Your task to perform on an android device: Open Chrome and go to settings Image 0: 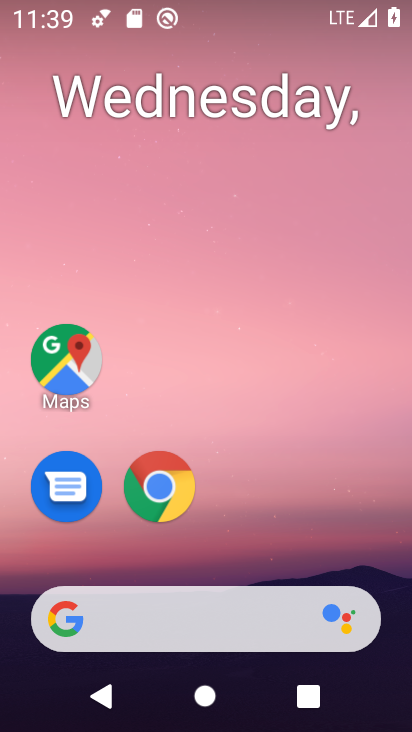
Step 0: drag from (350, 531) to (361, 76)
Your task to perform on an android device: Open Chrome and go to settings Image 1: 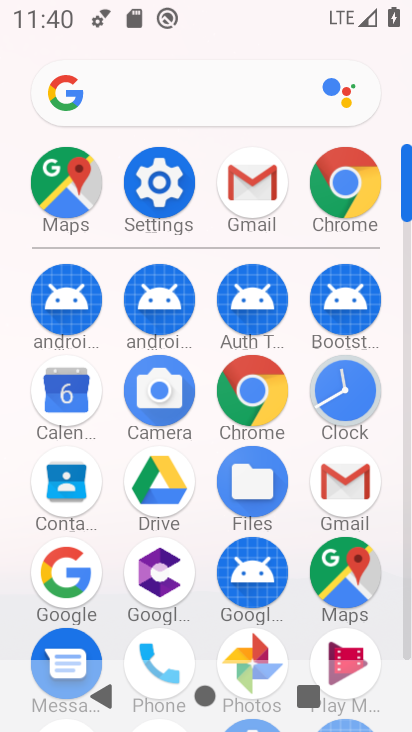
Step 1: click (266, 396)
Your task to perform on an android device: Open Chrome and go to settings Image 2: 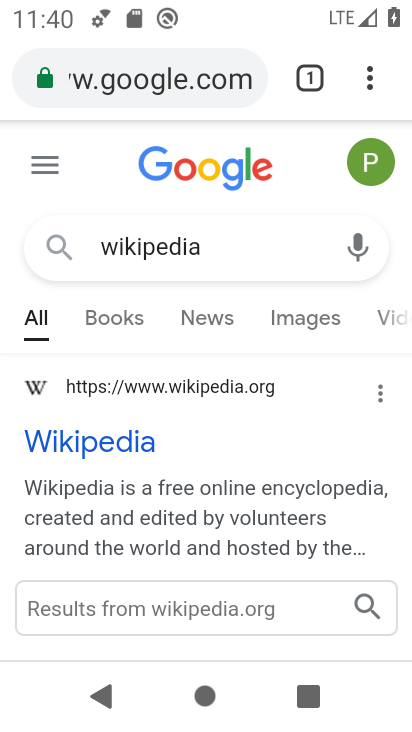
Step 2: click (373, 85)
Your task to perform on an android device: Open Chrome and go to settings Image 3: 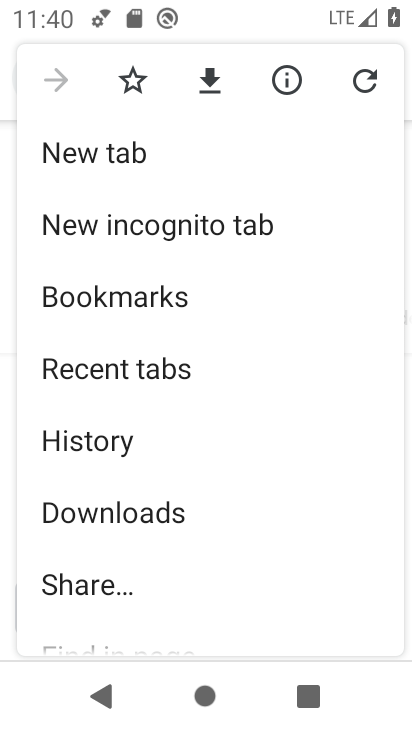
Step 3: drag from (349, 412) to (352, 277)
Your task to perform on an android device: Open Chrome and go to settings Image 4: 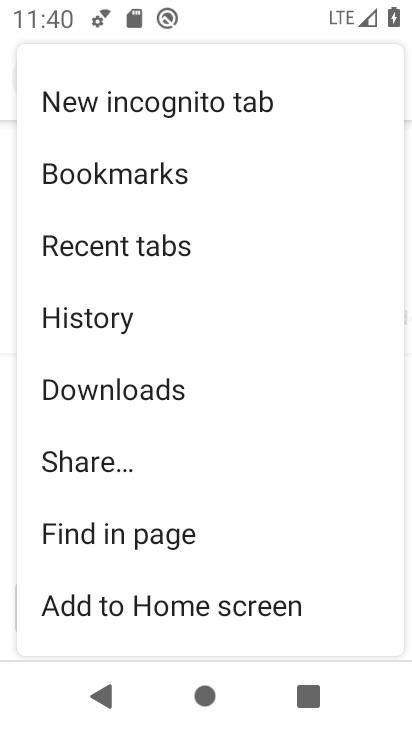
Step 4: drag from (346, 515) to (344, 327)
Your task to perform on an android device: Open Chrome and go to settings Image 5: 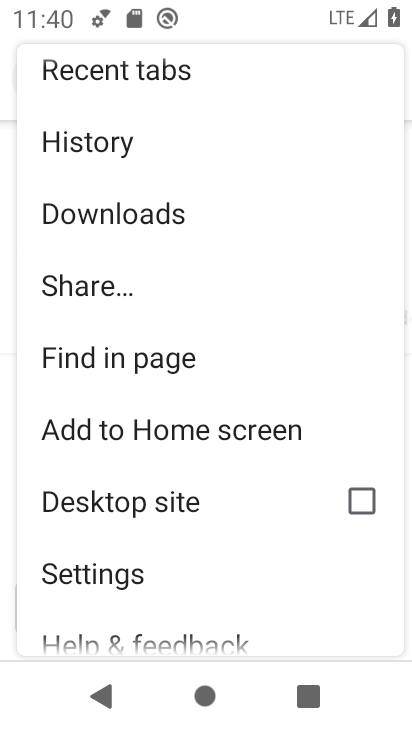
Step 5: drag from (305, 546) to (306, 336)
Your task to perform on an android device: Open Chrome and go to settings Image 6: 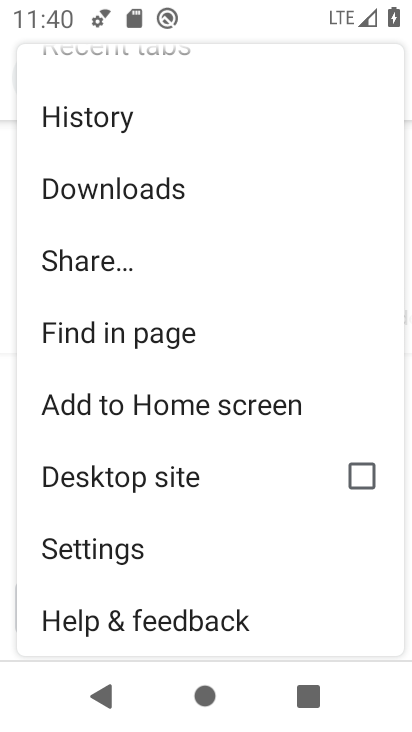
Step 6: click (129, 548)
Your task to perform on an android device: Open Chrome and go to settings Image 7: 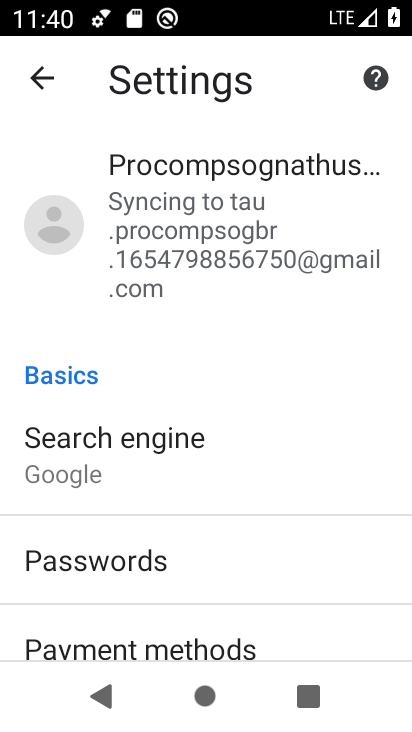
Step 7: task complete